Your task to perform on an android device: Open privacy settings Image 0: 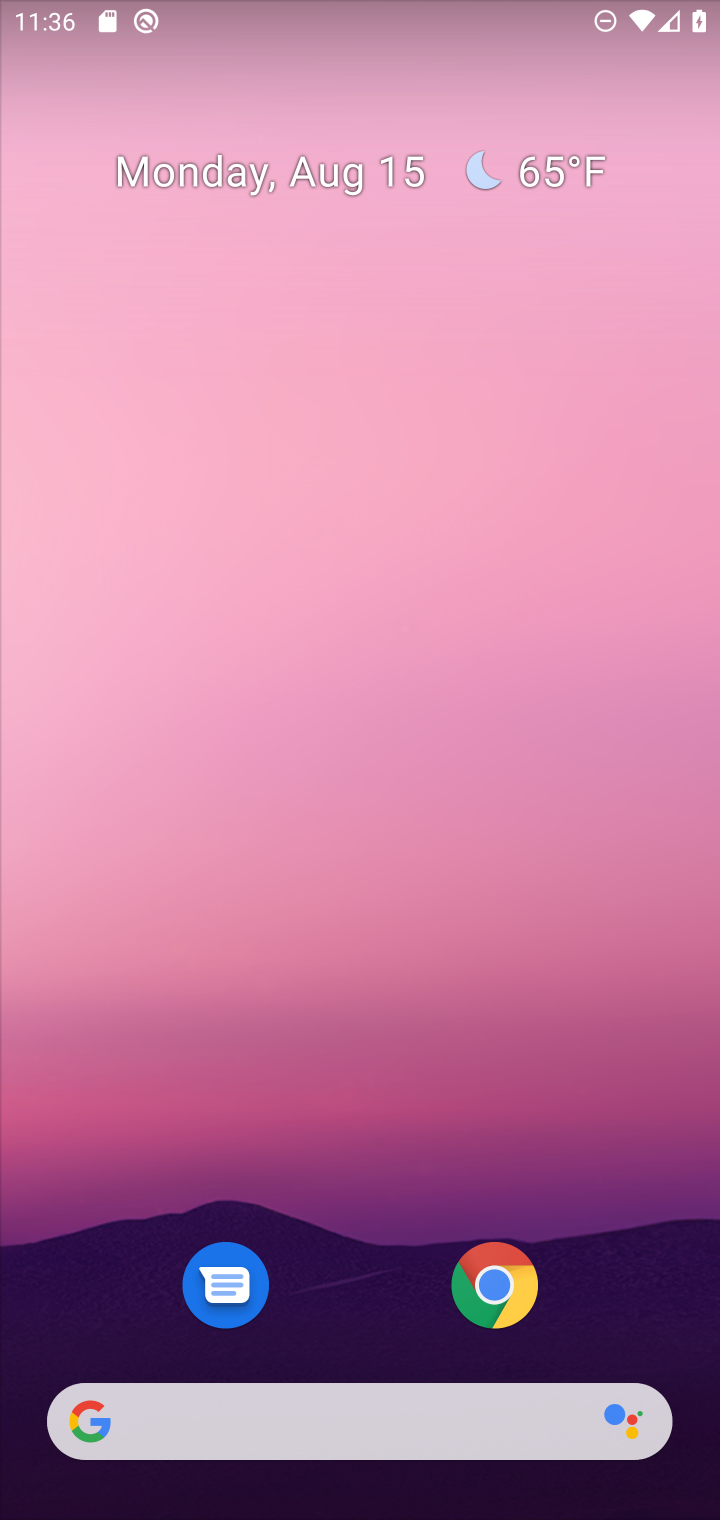
Step 0: drag from (377, 1339) to (400, 152)
Your task to perform on an android device: Open privacy settings Image 1: 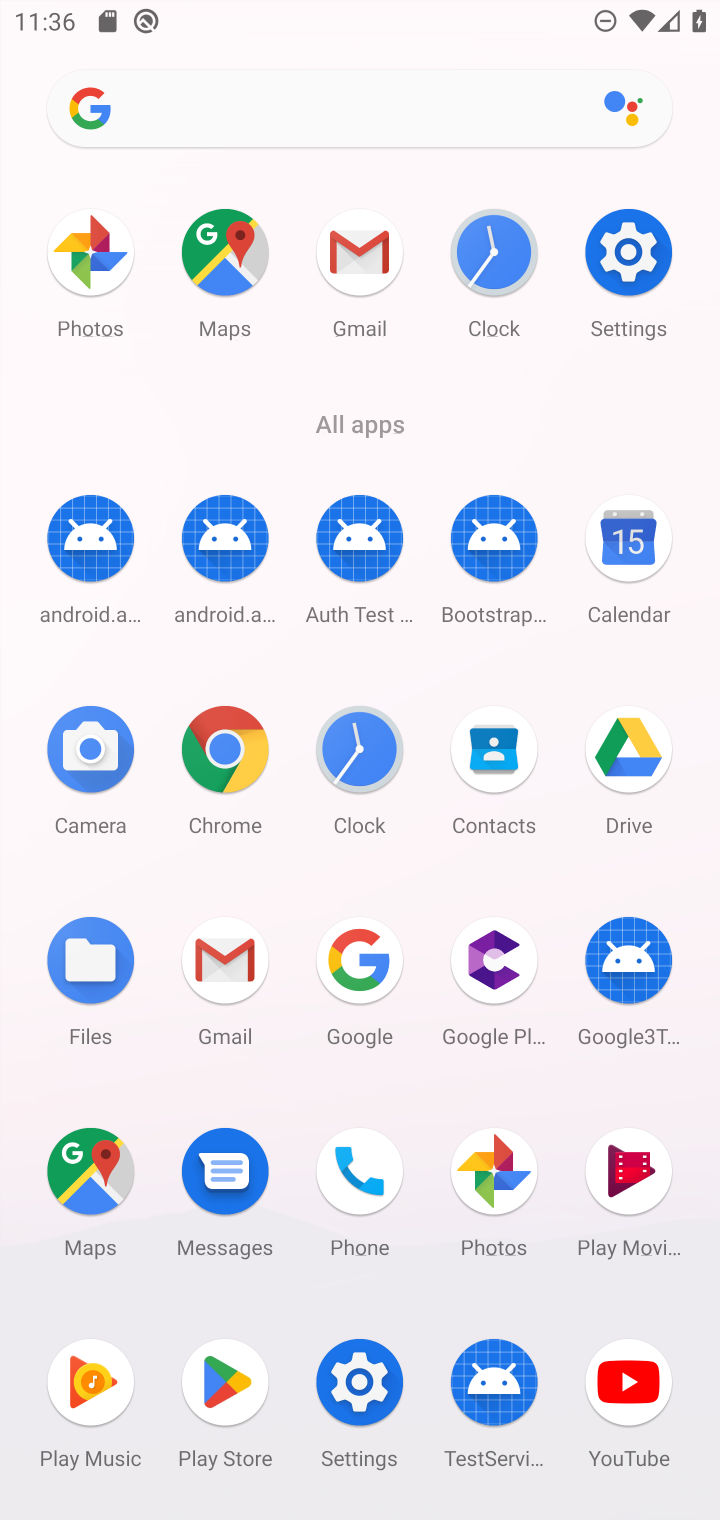
Step 1: click (620, 242)
Your task to perform on an android device: Open privacy settings Image 2: 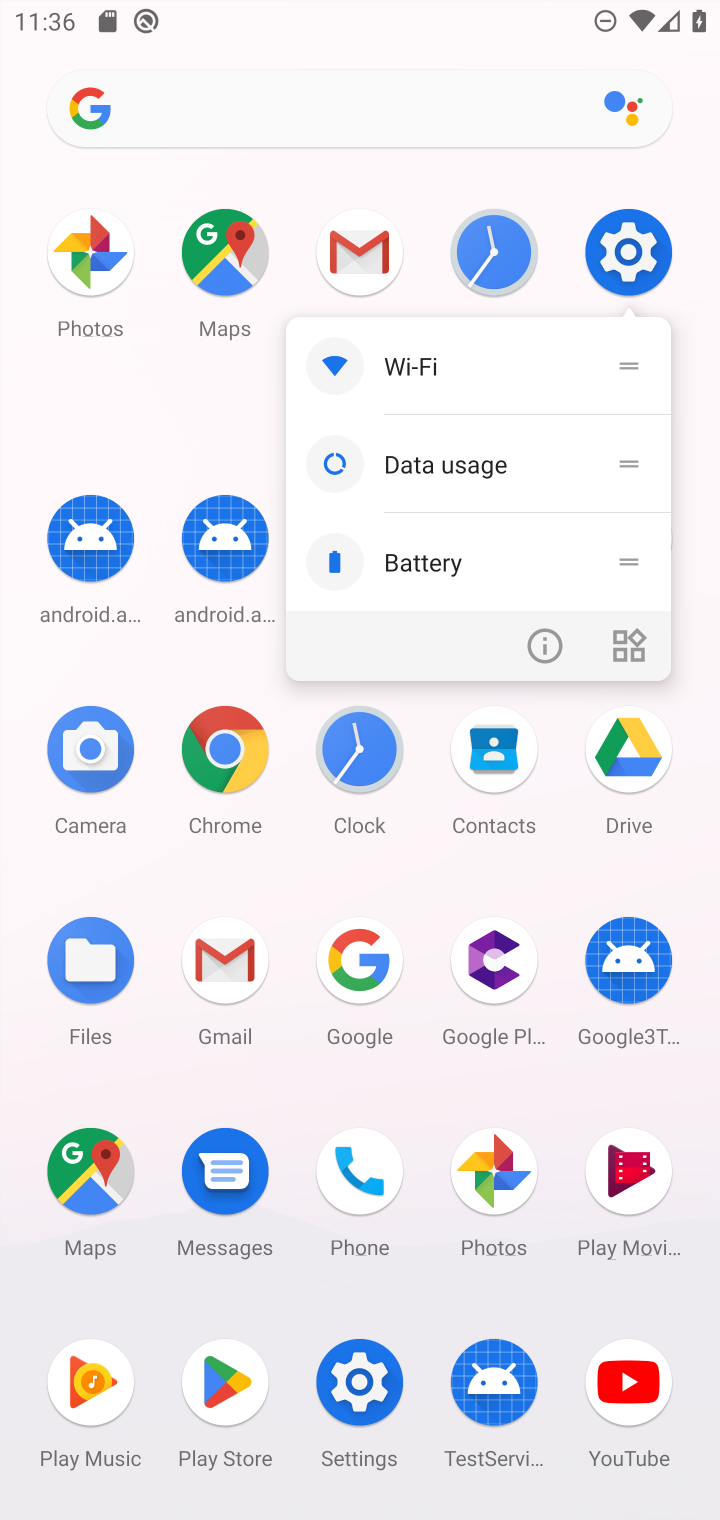
Step 2: click (627, 244)
Your task to perform on an android device: Open privacy settings Image 3: 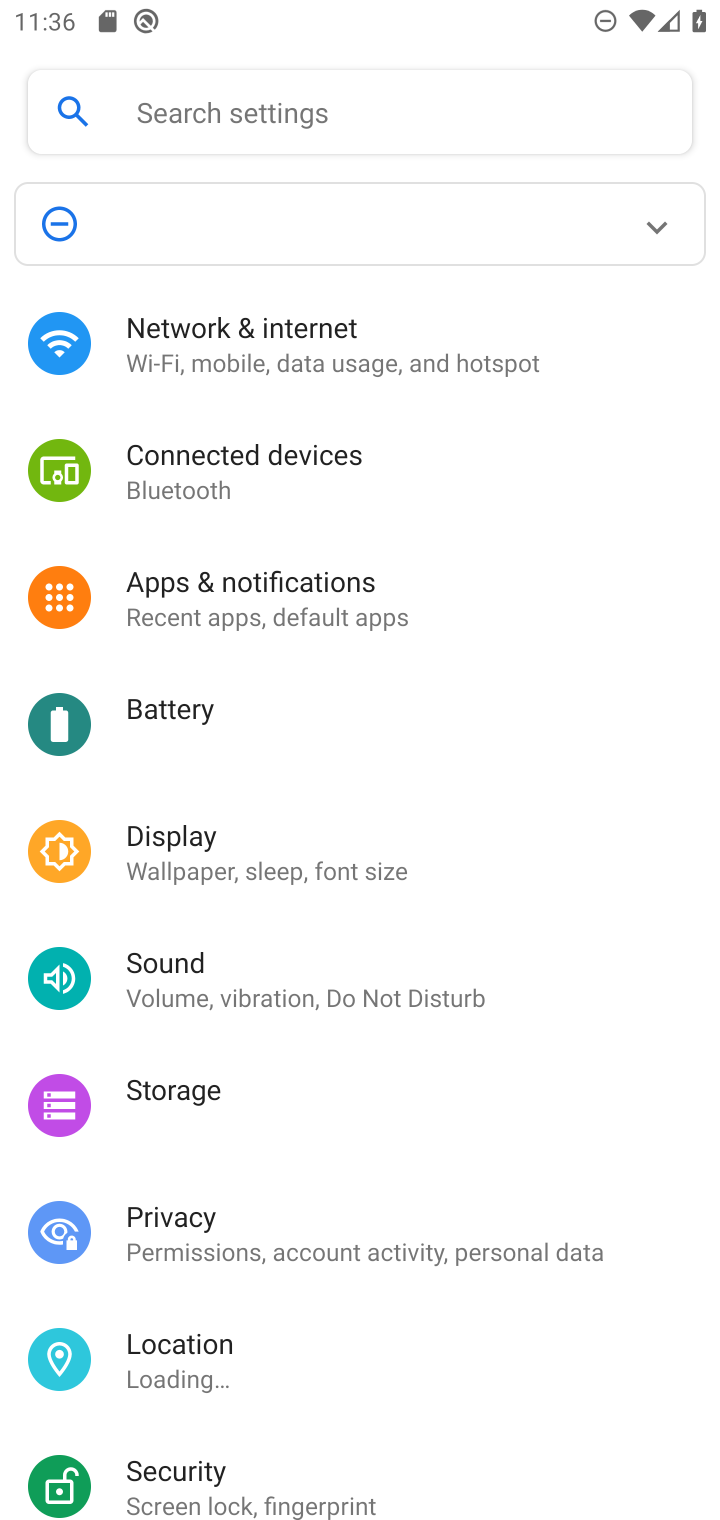
Step 3: click (629, 235)
Your task to perform on an android device: Open privacy settings Image 4: 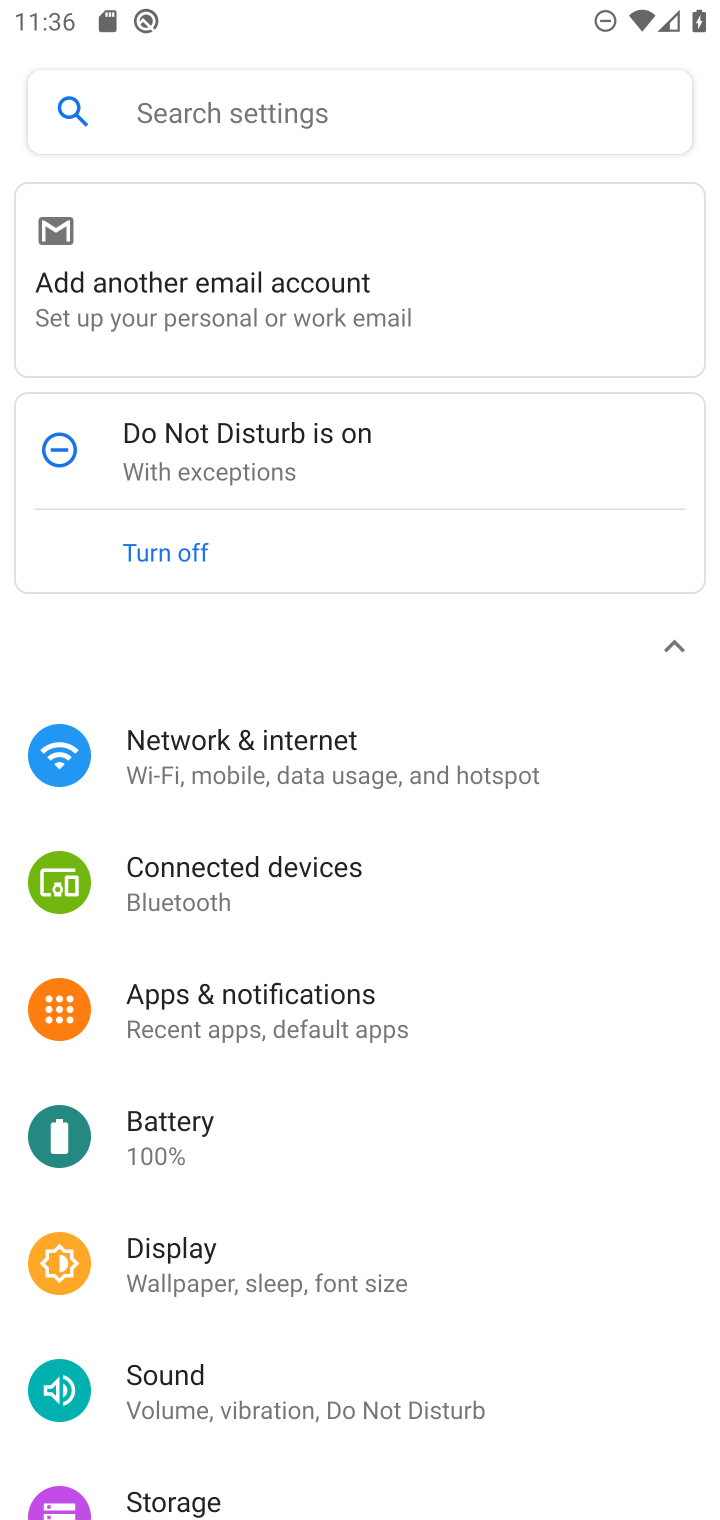
Step 4: drag from (283, 1441) to (287, 197)
Your task to perform on an android device: Open privacy settings Image 5: 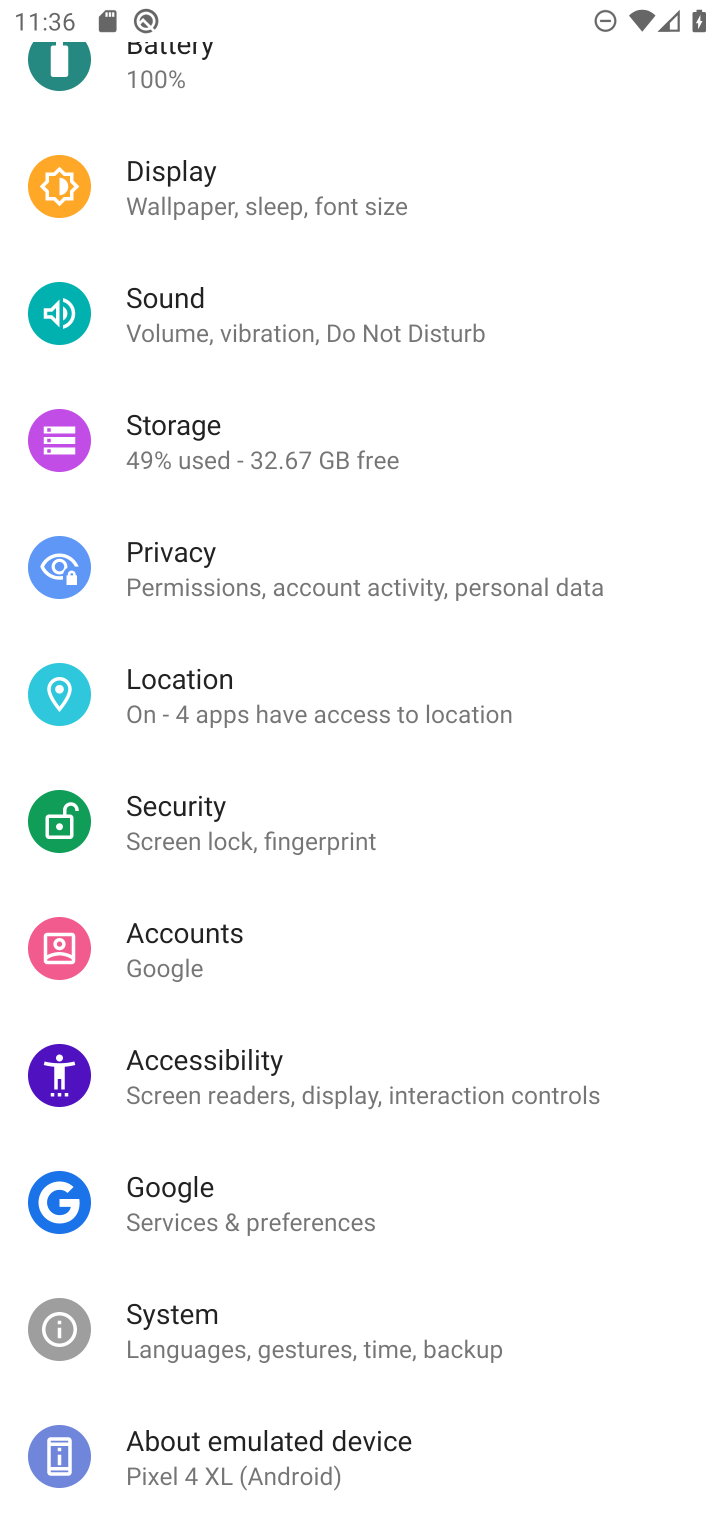
Step 5: click (242, 550)
Your task to perform on an android device: Open privacy settings Image 6: 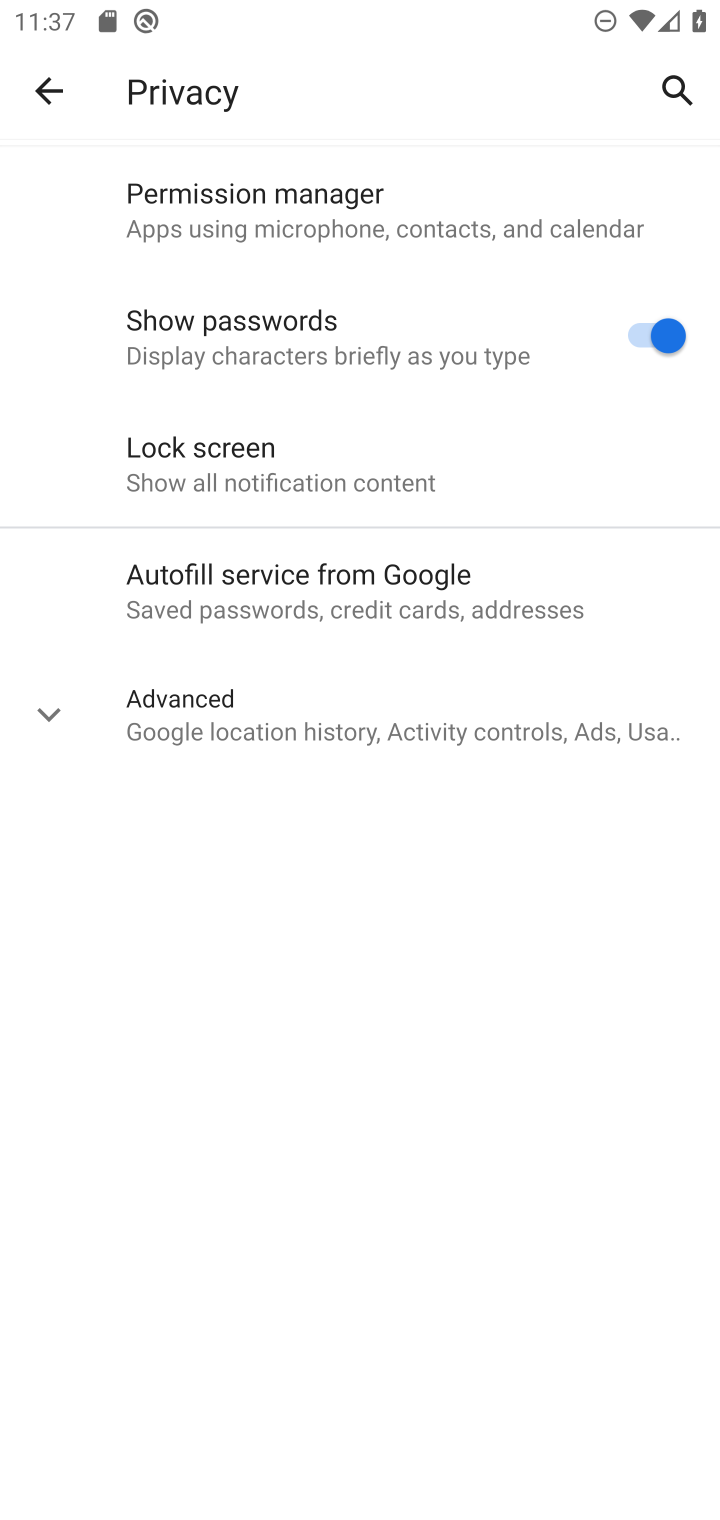
Step 6: click (48, 701)
Your task to perform on an android device: Open privacy settings Image 7: 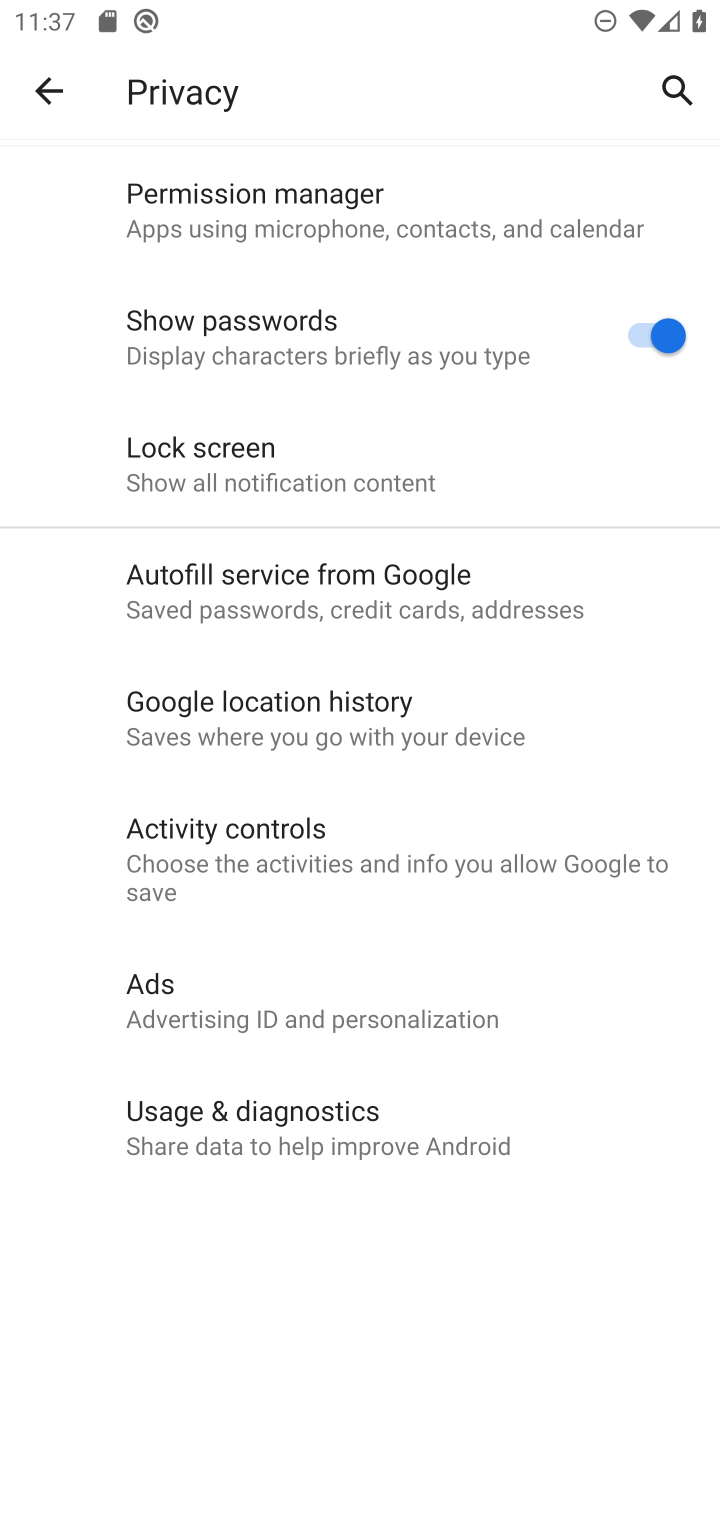
Step 7: task complete